Your task to perform on an android device: Open the phone app and click the voicemail tab. Image 0: 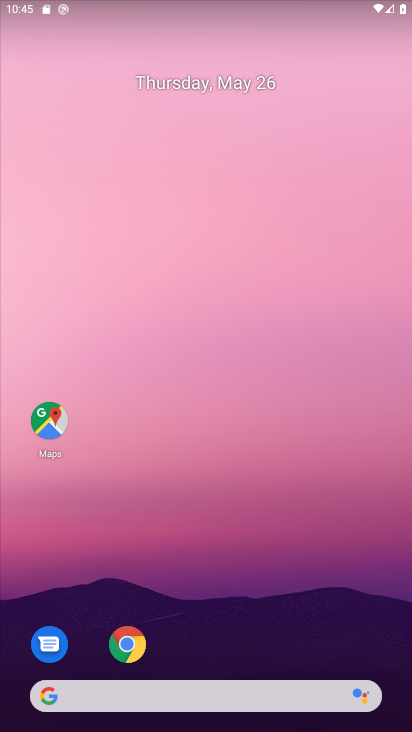
Step 0: drag from (377, 607) to (381, 168)
Your task to perform on an android device: Open the phone app and click the voicemail tab. Image 1: 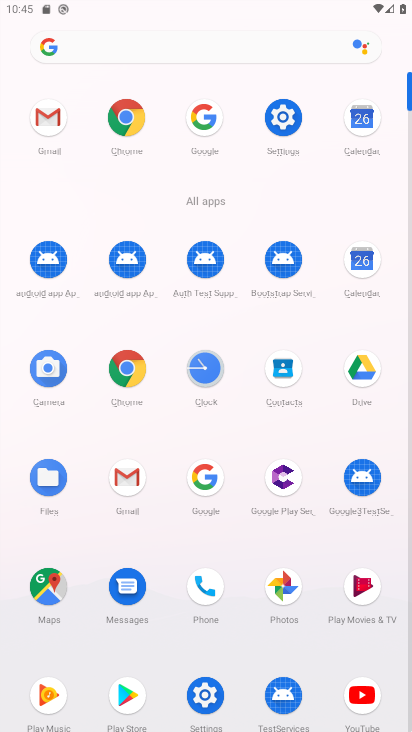
Step 1: click (207, 592)
Your task to perform on an android device: Open the phone app and click the voicemail tab. Image 2: 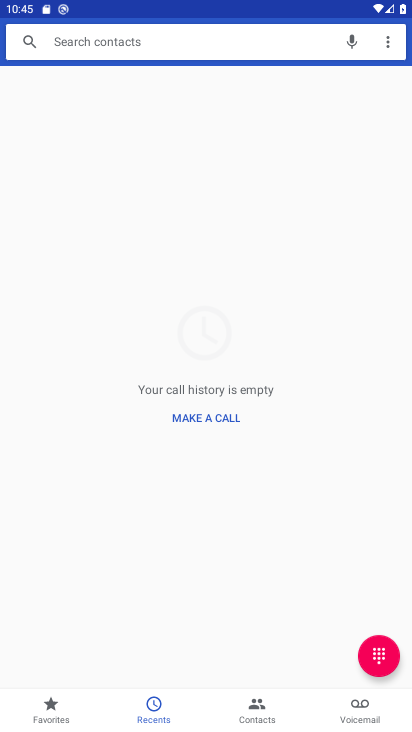
Step 2: click (363, 717)
Your task to perform on an android device: Open the phone app and click the voicemail tab. Image 3: 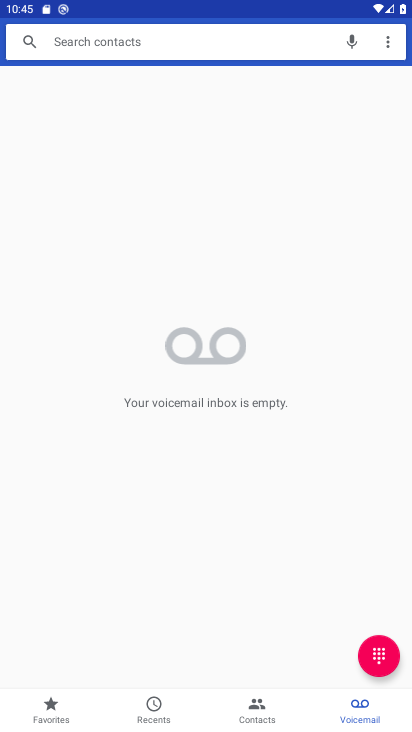
Step 3: task complete